Your task to perform on an android device: Search for a custom-made wallet on Etsy Image 0: 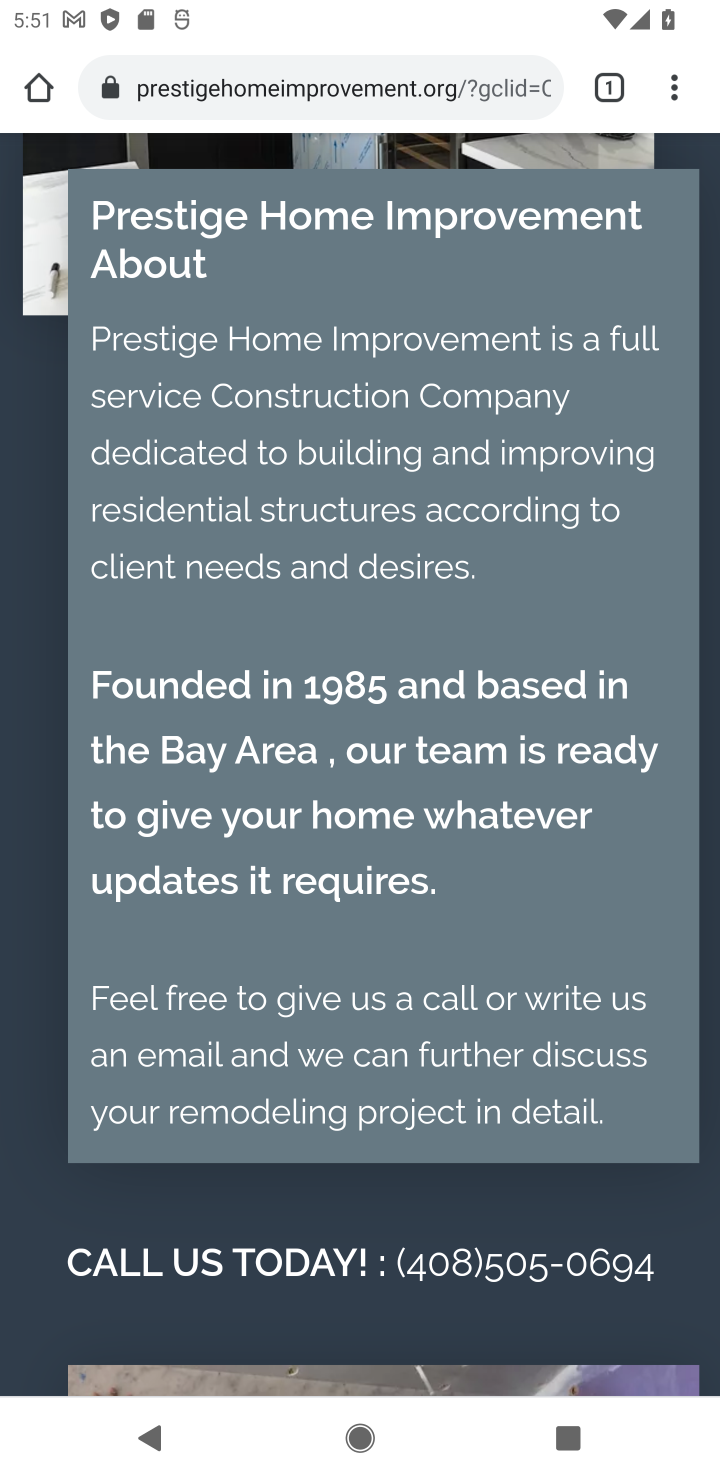
Step 0: press home button
Your task to perform on an android device: Search for a custom-made wallet on Etsy Image 1: 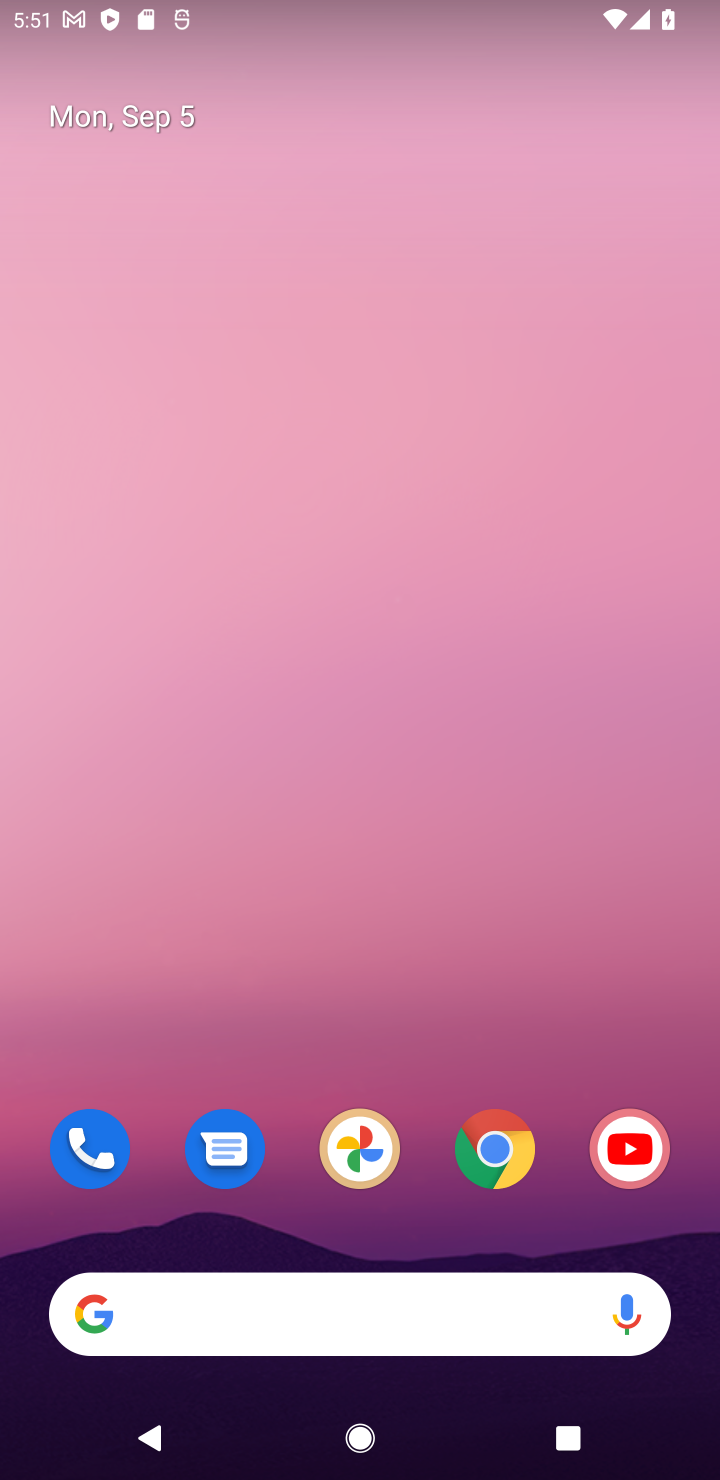
Step 1: click (493, 1160)
Your task to perform on an android device: Search for a custom-made wallet on Etsy Image 2: 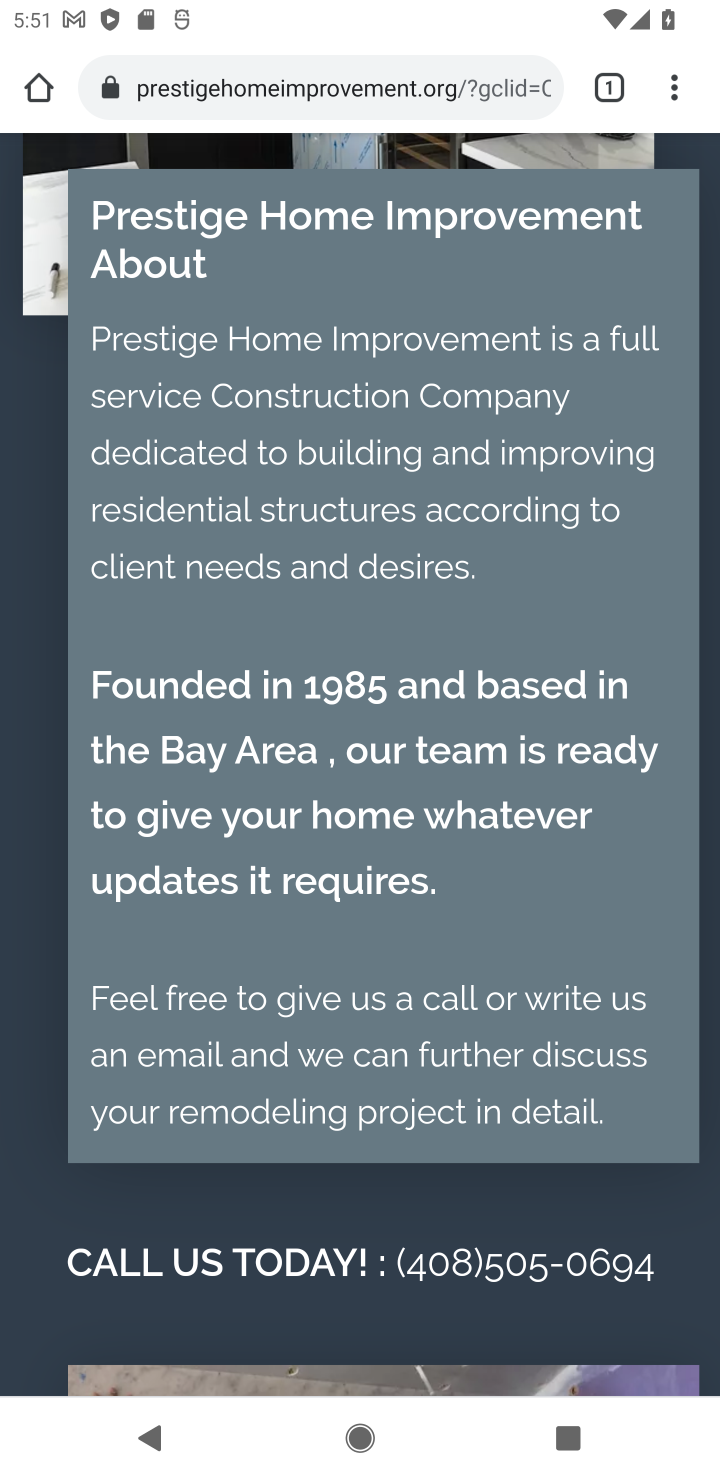
Step 2: click (381, 67)
Your task to perform on an android device: Search for a custom-made wallet on Etsy Image 3: 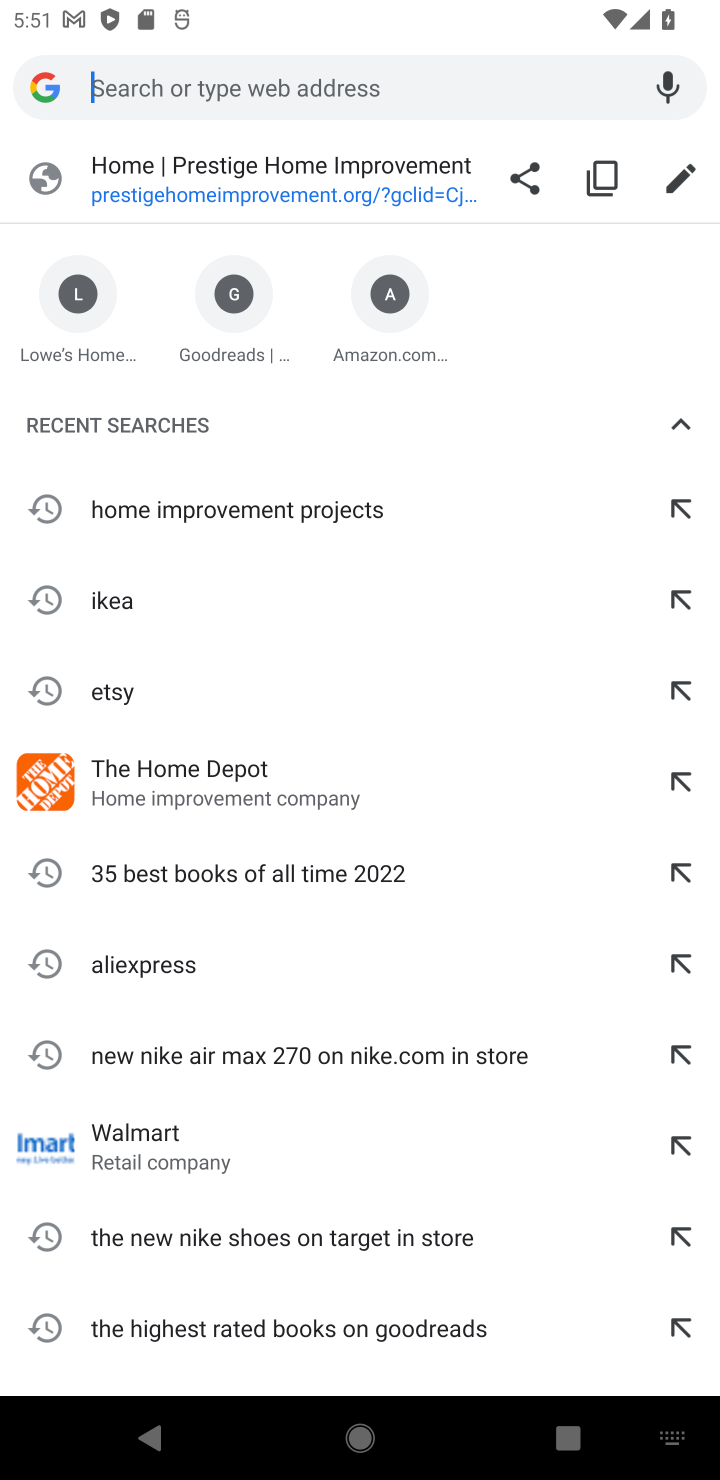
Step 3: type "etsy"
Your task to perform on an android device: Search for a custom-made wallet on Etsy Image 4: 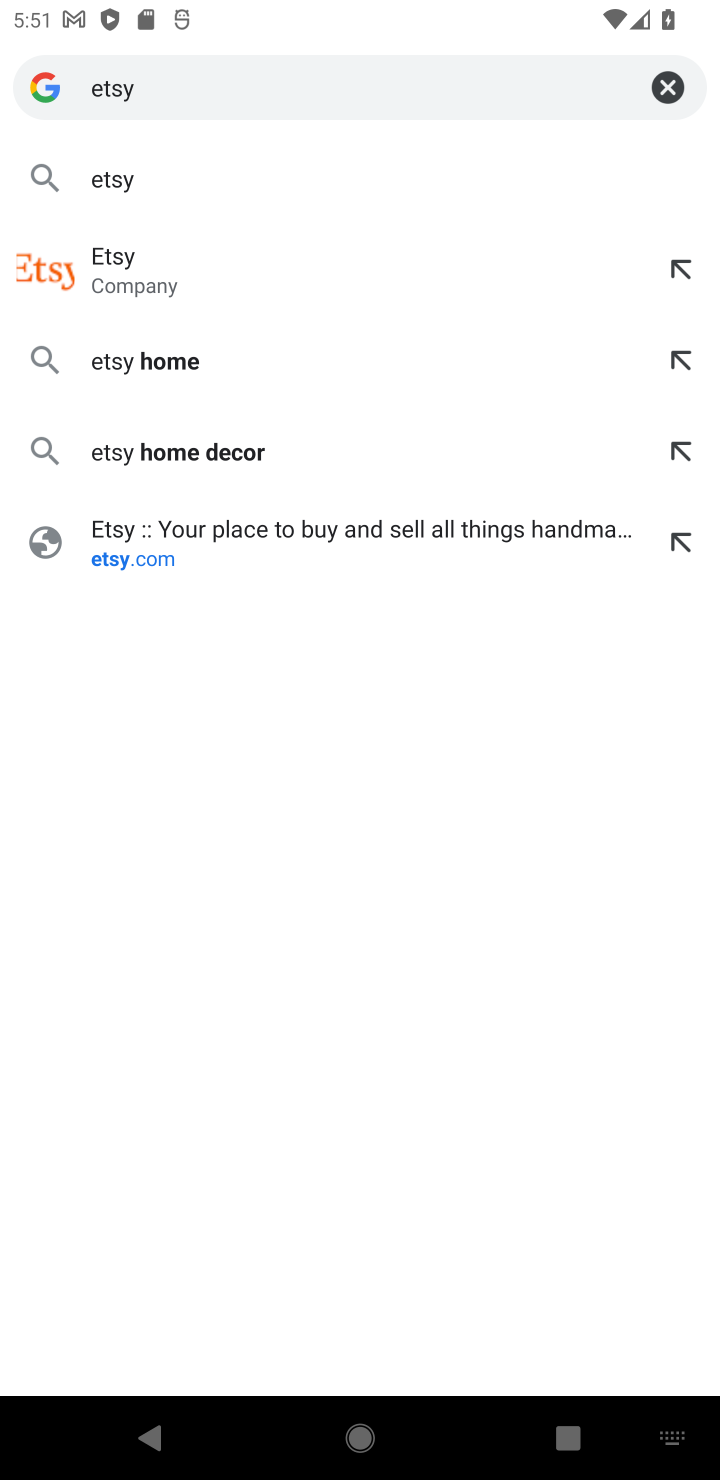
Step 4: click (112, 264)
Your task to perform on an android device: Search for a custom-made wallet on Etsy Image 5: 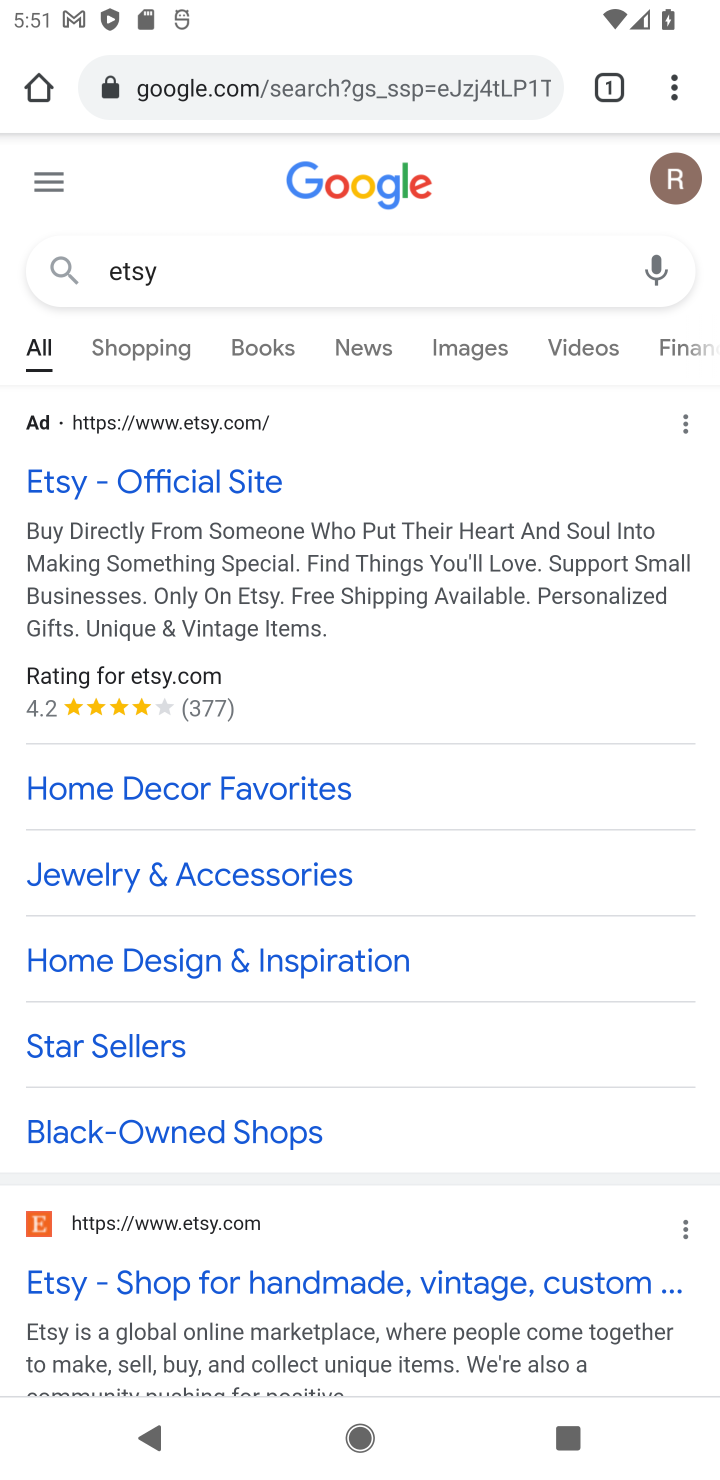
Step 5: click (140, 482)
Your task to perform on an android device: Search for a custom-made wallet on Etsy Image 6: 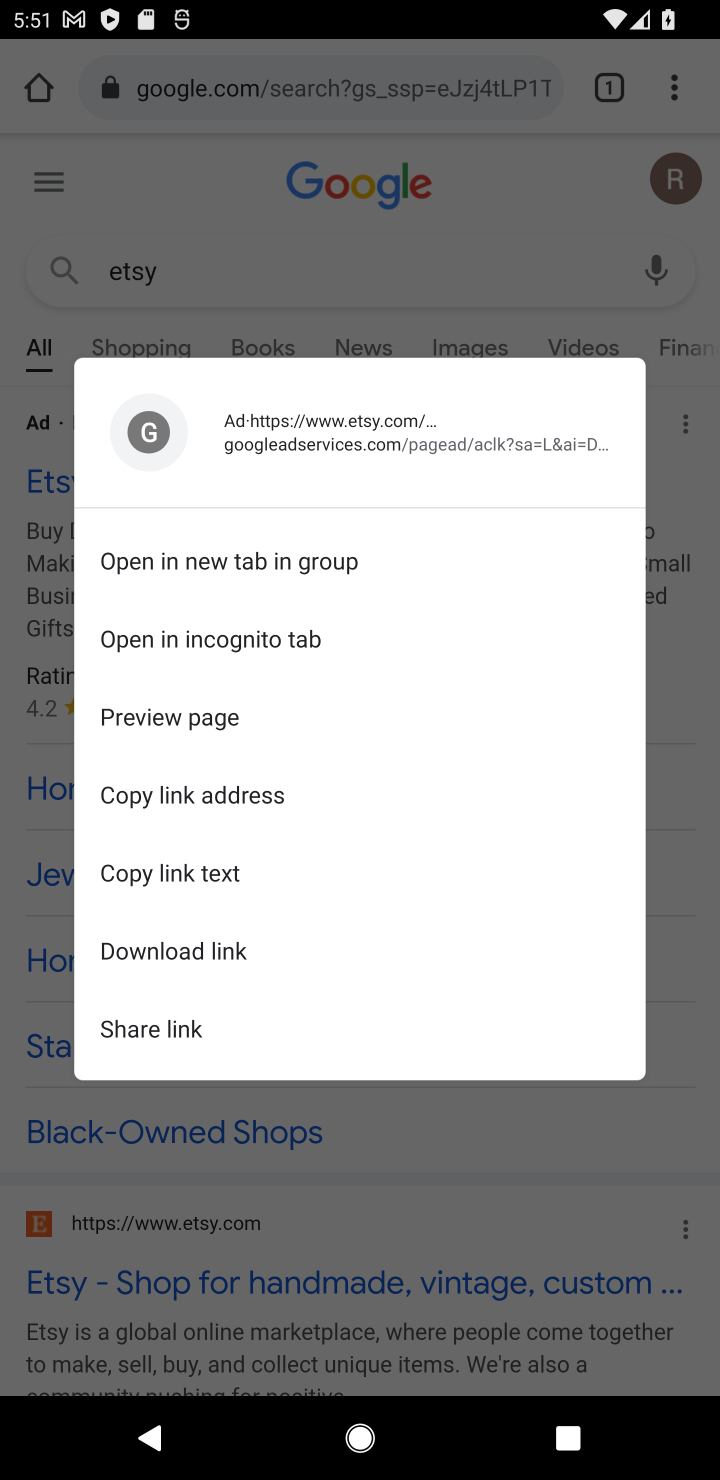
Step 6: click (20, 606)
Your task to perform on an android device: Search for a custom-made wallet on Etsy Image 7: 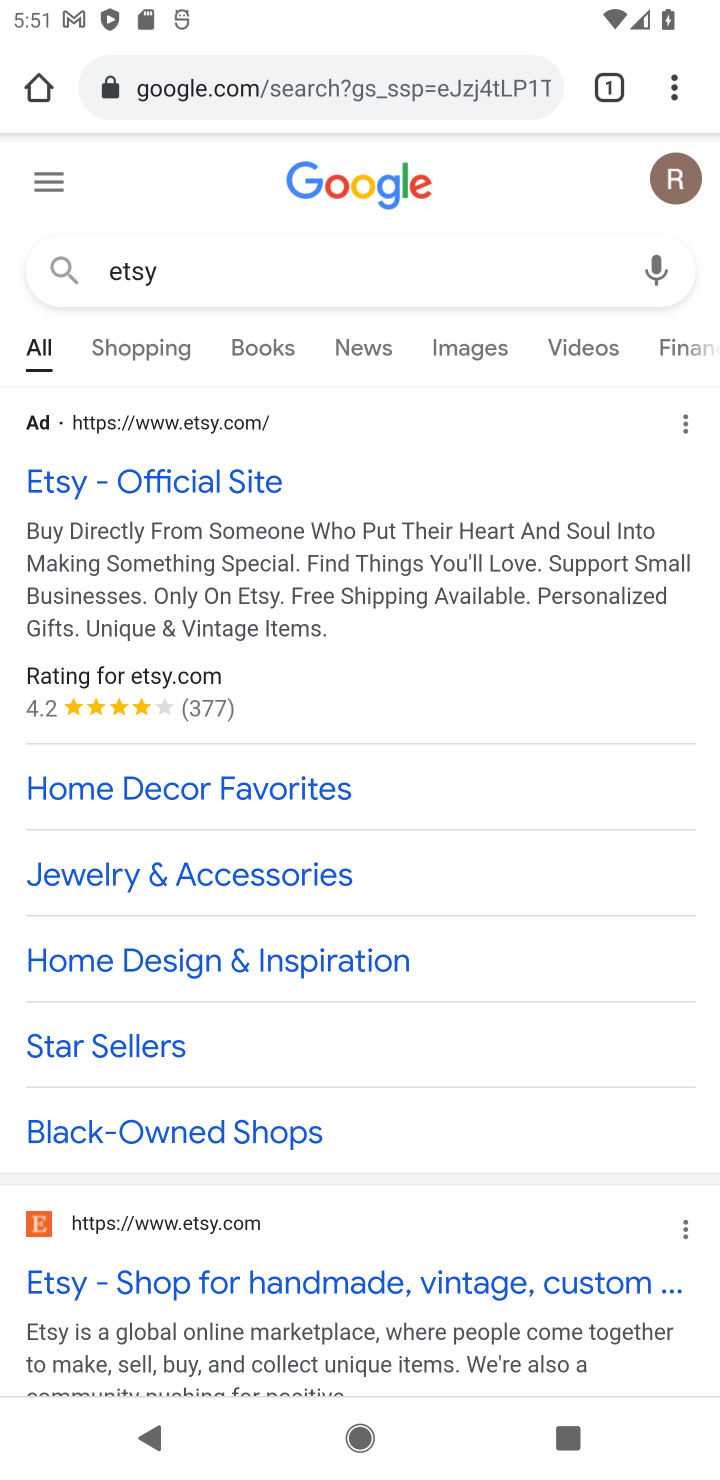
Step 7: click (167, 479)
Your task to perform on an android device: Search for a custom-made wallet on Etsy Image 8: 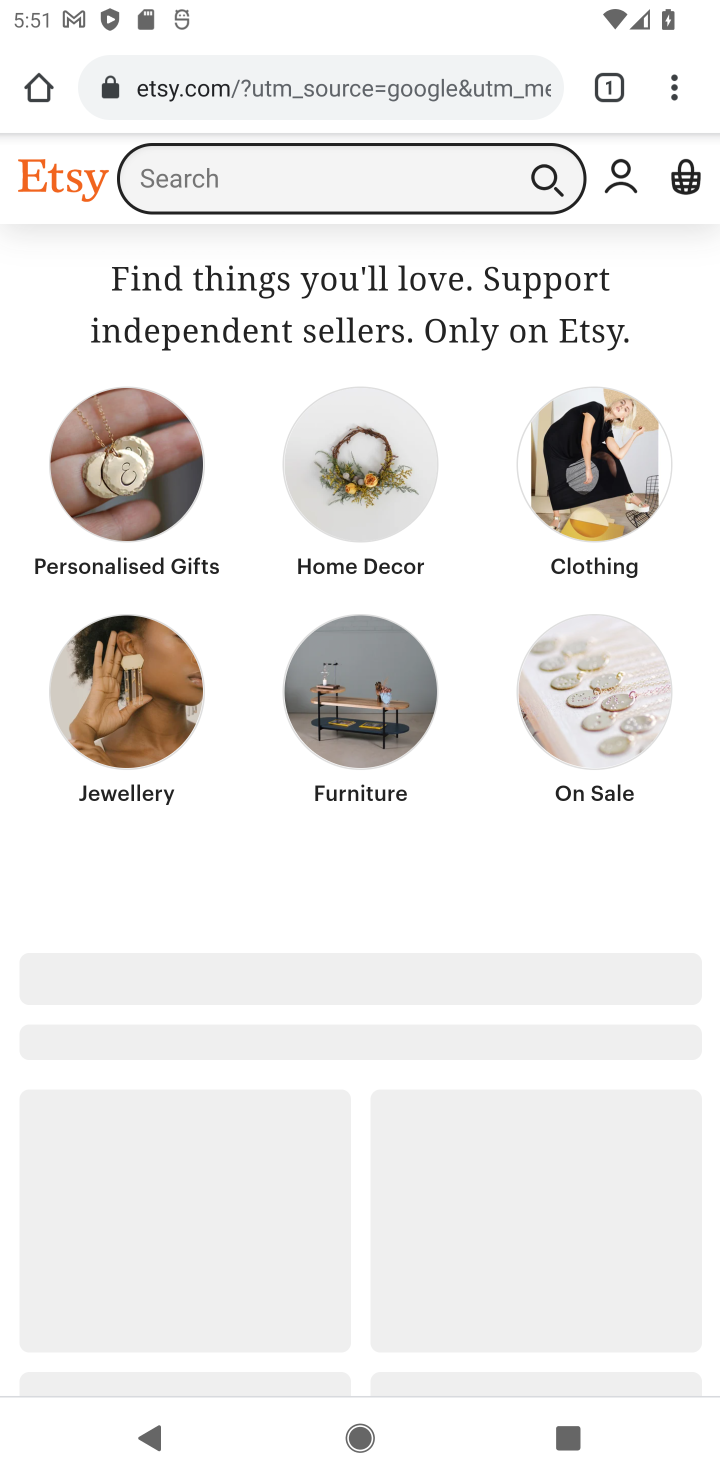
Step 8: click (208, 167)
Your task to perform on an android device: Search for a custom-made wallet on Etsy Image 9: 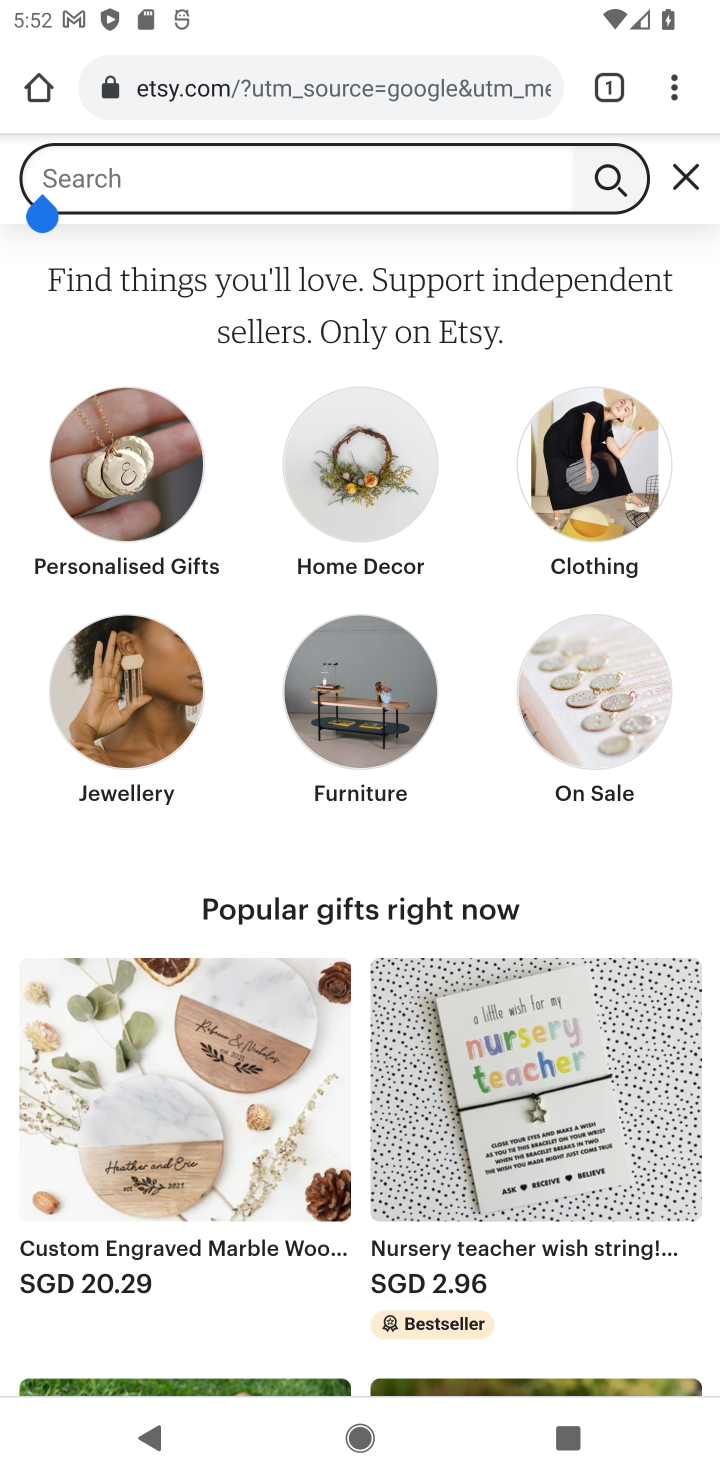
Step 9: type "custom-made wallet"
Your task to perform on an android device: Search for a custom-made wallet on Etsy Image 10: 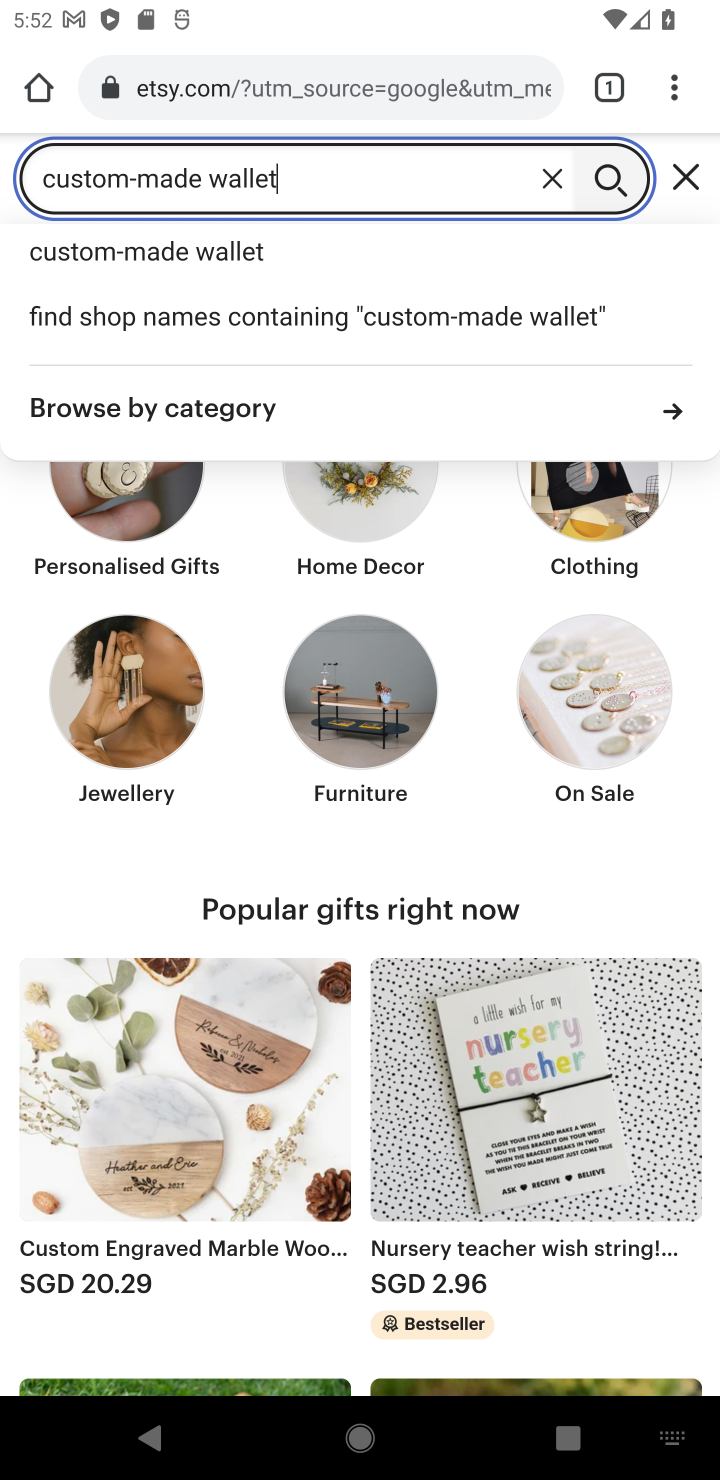
Step 10: click (610, 178)
Your task to perform on an android device: Search for a custom-made wallet on Etsy Image 11: 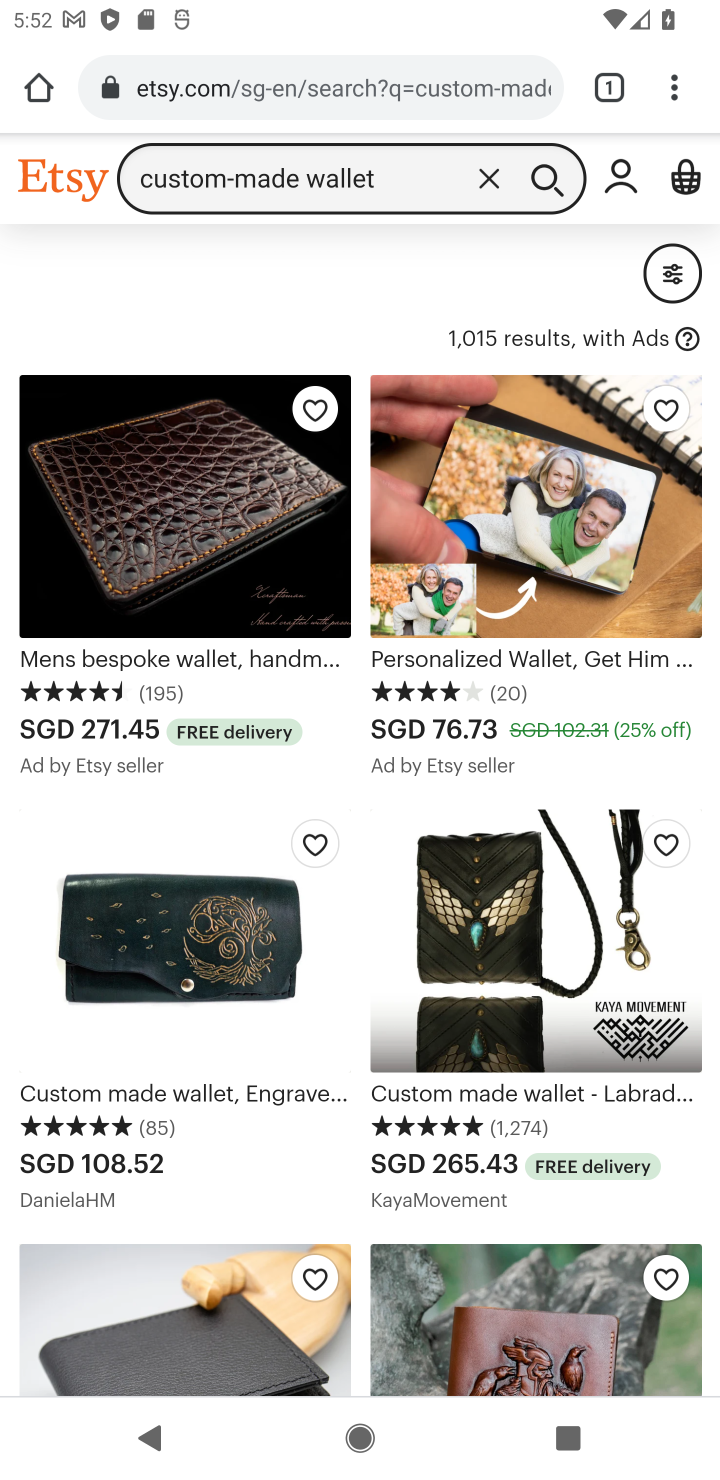
Step 11: task complete